Your task to perform on an android device: turn off notifications settings in the gmail app Image 0: 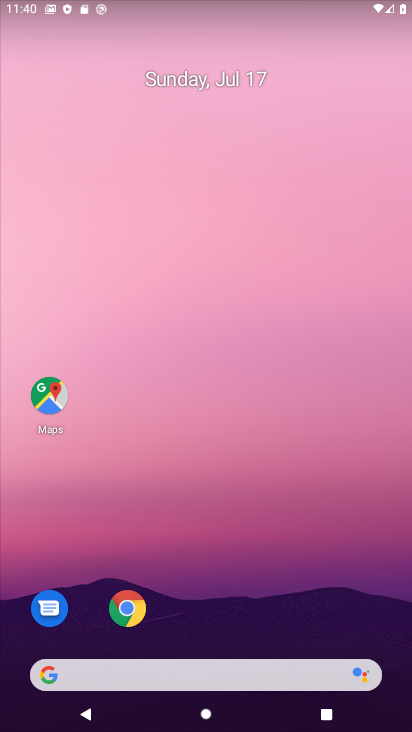
Step 0: click (409, 494)
Your task to perform on an android device: turn off notifications settings in the gmail app Image 1: 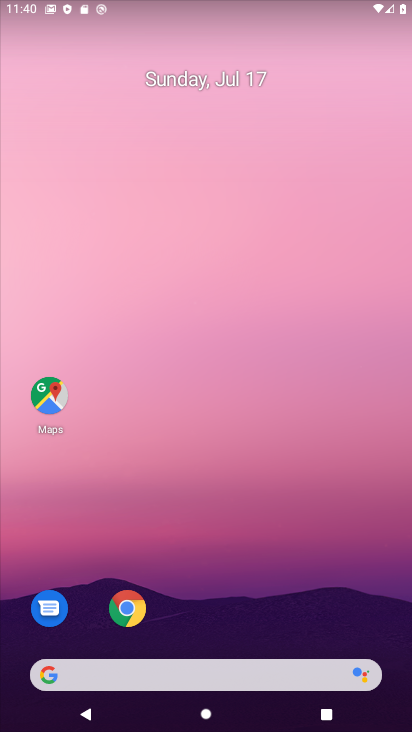
Step 1: drag from (192, 664) to (309, 111)
Your task to perform on an android device: turn off notifications settings in the gmail app Image 2: 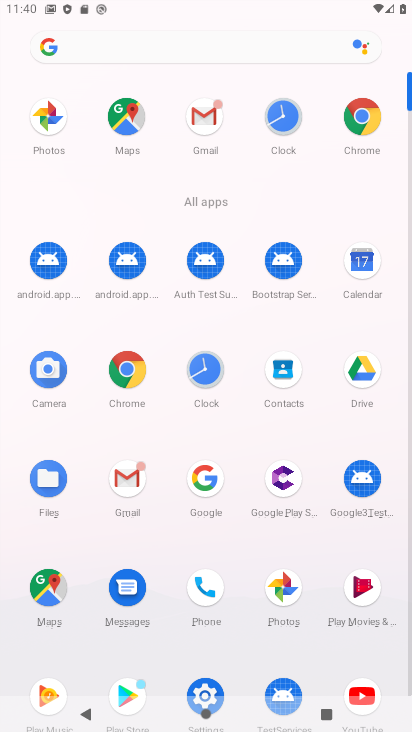
Step 2: click (286, 586)
Your task to perform on an android device: turn off notifications settings in the gmail app Image 3: 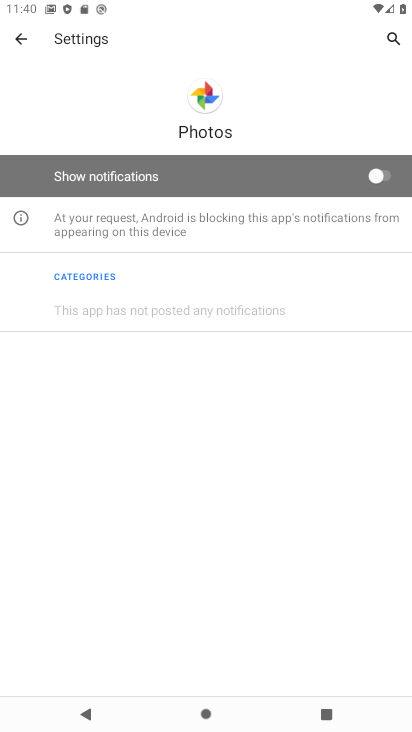
Step 3: task complete